Your task to perform on an android device: add a contact in the contacts app Image 0: 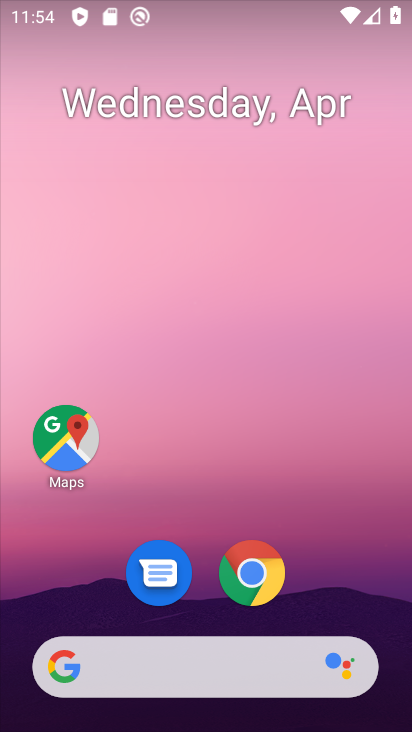
Step 0: drag from (201, 578) to (201, 90)
Your task to perform on an android device: add a contact in the contacts app Image 1: 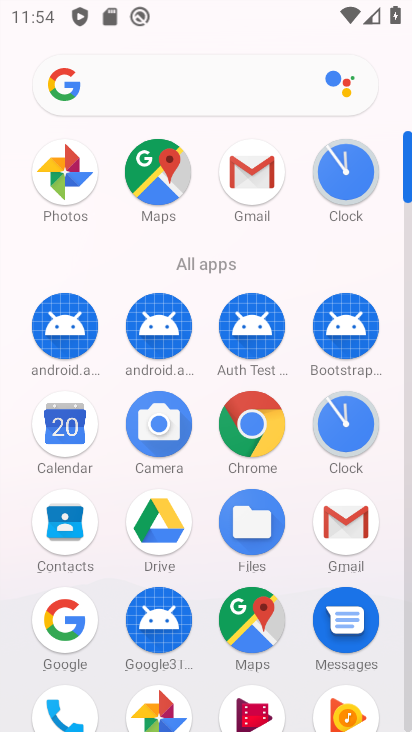
Step 1: click (67, 526)
Your task to perform on an android device: add a contact in the contacts app Image 2: 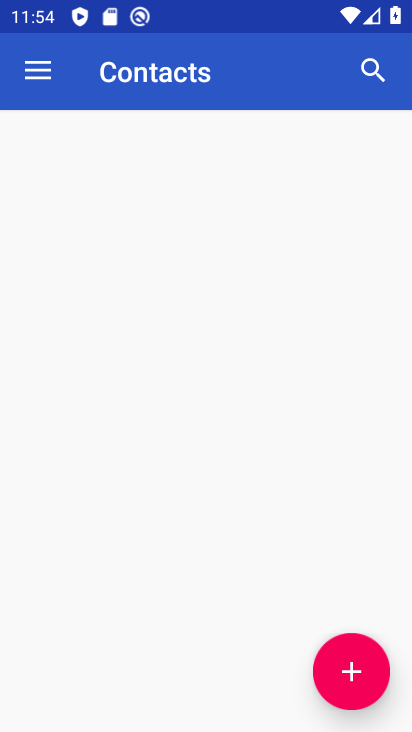
Step 2: click (352, 672)
Your task to perform on an android device: add a contact in the contacts app Image 3: 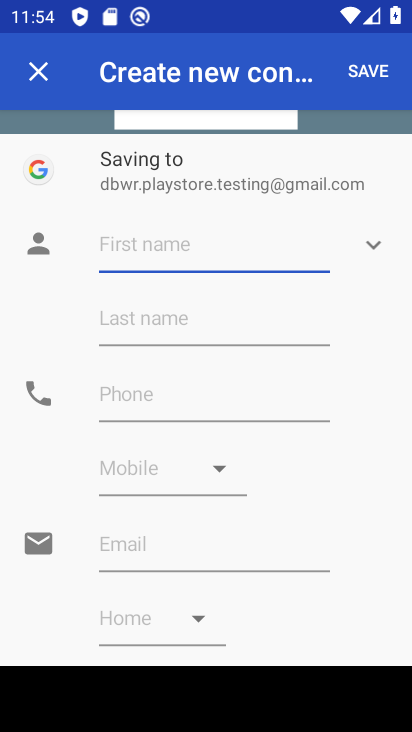
Step 3: type "hsefgjsg"
Your task to perform on an android device: add a contact in the contacts app Image 4: 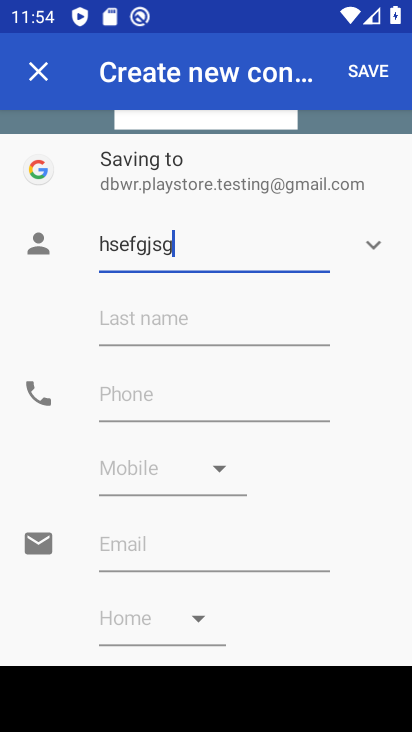
Step 4: click (364, 72)
Your task to perform on an android device: add a contact in the contacts app Image 5: 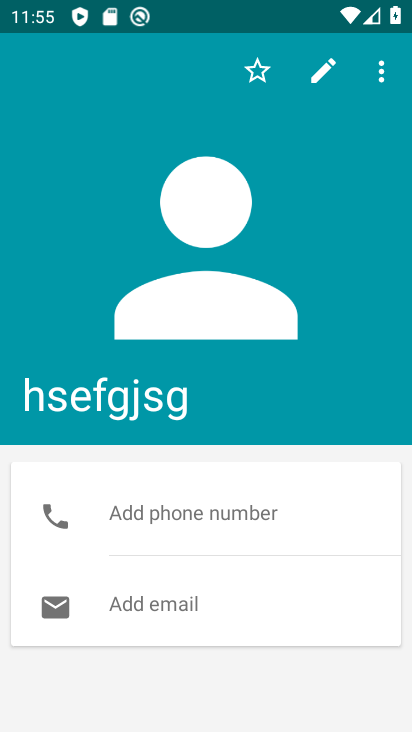
Step 5: task complete